Your task to perform on an android device: Go to Android settings Image 0: 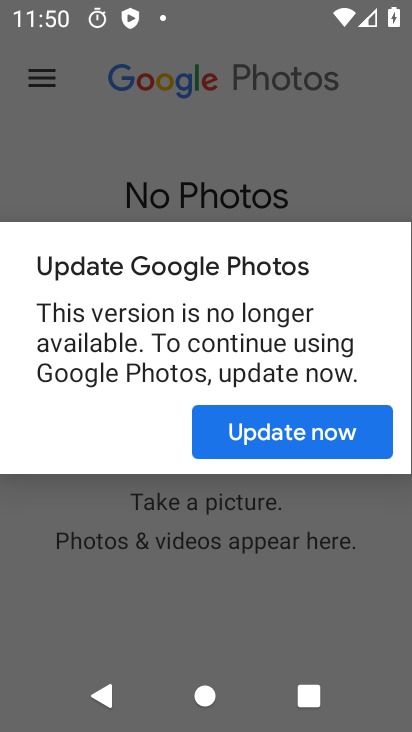
Step 0: press back button
Your task to perform on an android device: Go to Android settings Image 1: 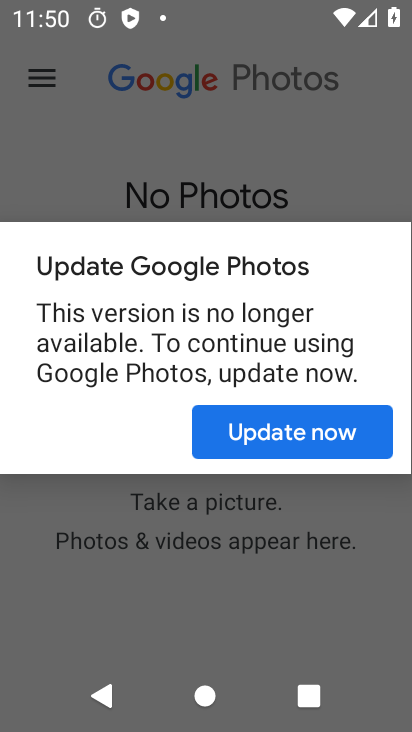
Step 1: press home button
Your task to perform on an android device: Go to Android settings Image 2: 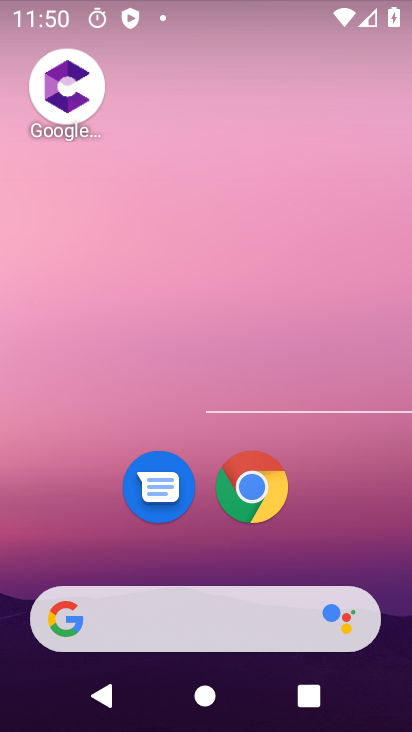
Step 2: drag from (195, 514) to (305, 13)
Your task to perform on an android device: Go to Android settings Image 3: 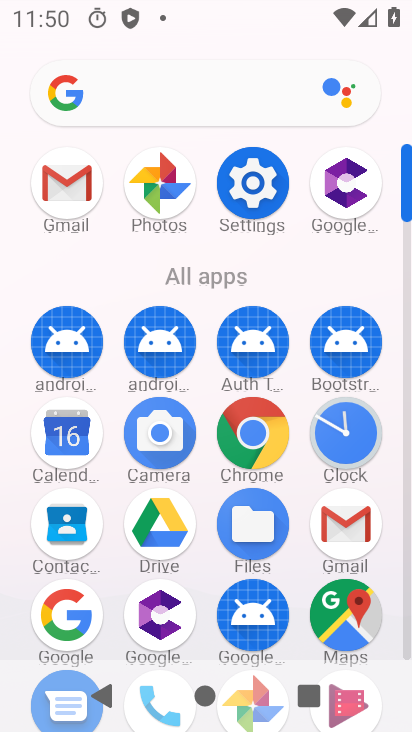
Step 3: click (257, 183)
Your task to perform on an android device: Go to Android settings Image 4: 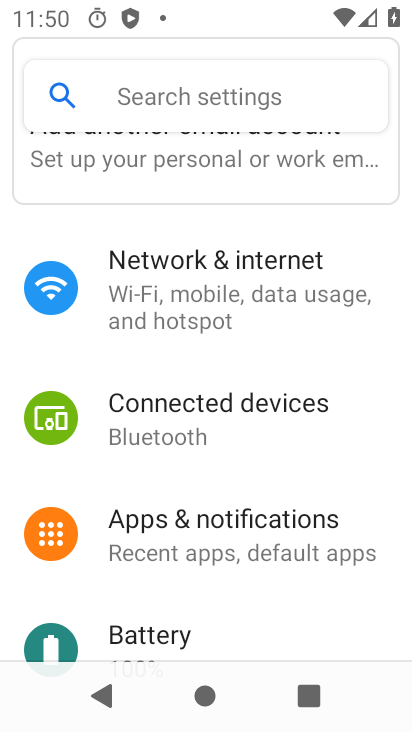
Step 4: drag from (230, 317) to (288, 59)
Your task to perform on an android device: Go to Android settings Image 5: 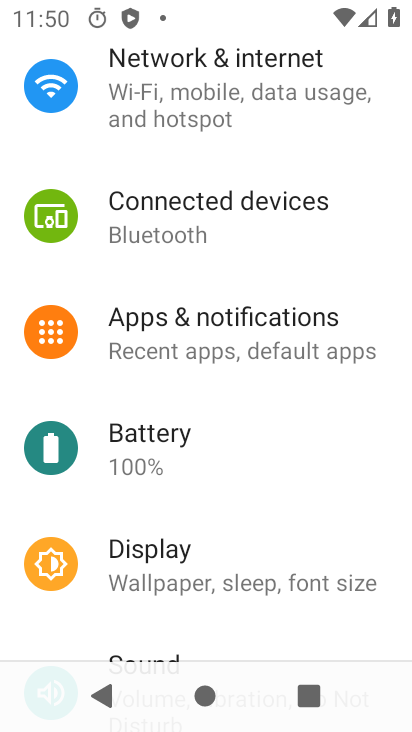
Step 5: drag from (196, 526) to (262, 41)
Your task to perform on an android device: Go to Android settings Image 6: 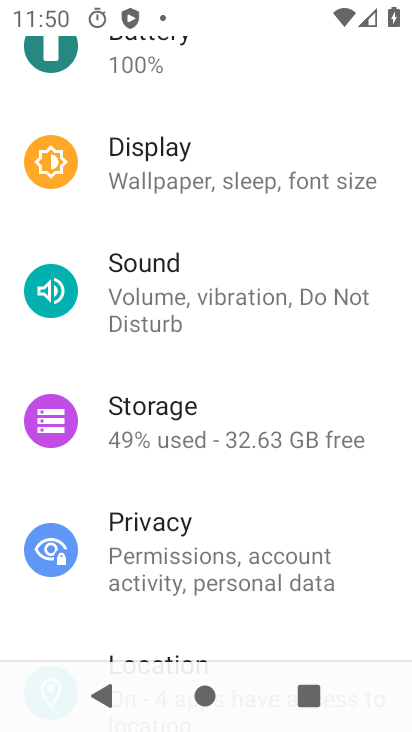
Step 6: drag from (147, 602) to (234, 43)
Your task to perform on an android device: Go to Android settings Image 7: 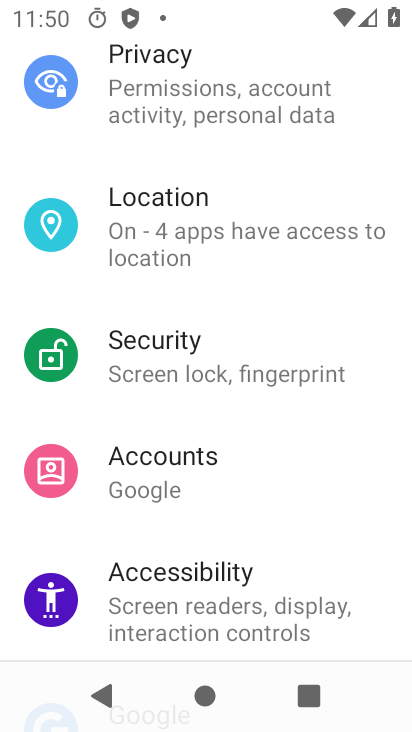
Step 7: drag from (173, 600) to (269, 0)
Your task to perform on an android device: Go to Android settings Image 8: 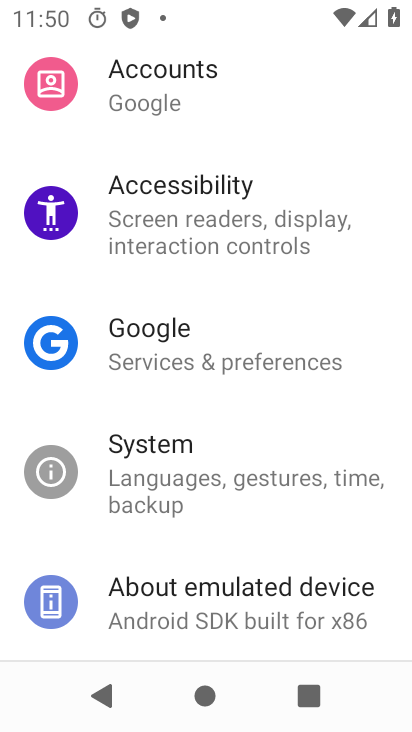
Step 8: click (202, 606)
Your task to perform on an android device: Go to Android settings Image 9: 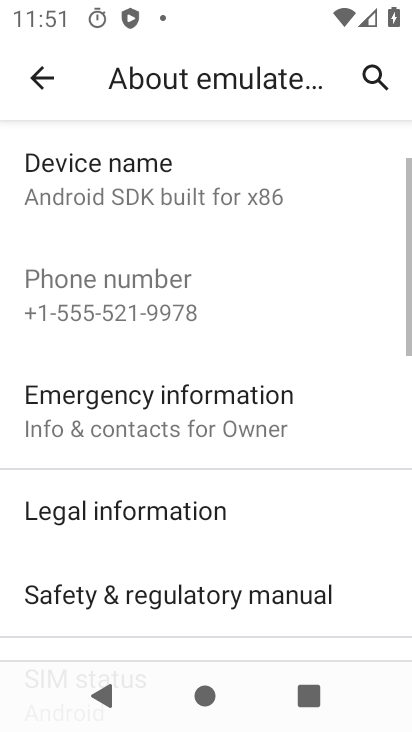
Step 9: drag from (112, 595) to (226, 111)
Your task to perform on an android device: Go to Android settings Image 10: 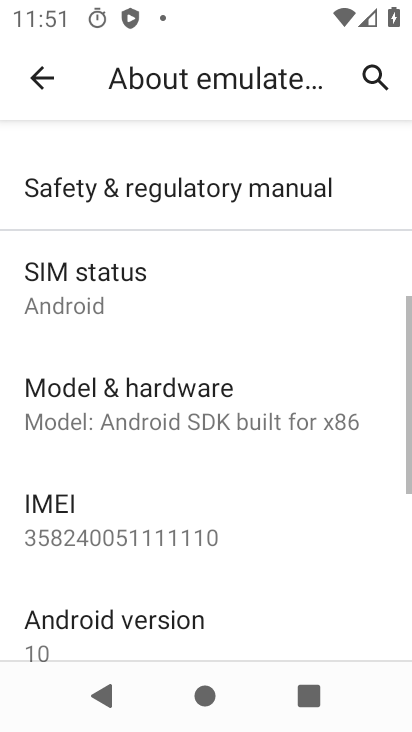
Step 10: click (159, 639)
Your task to perform on an android device: Go to Android settings Image 11: 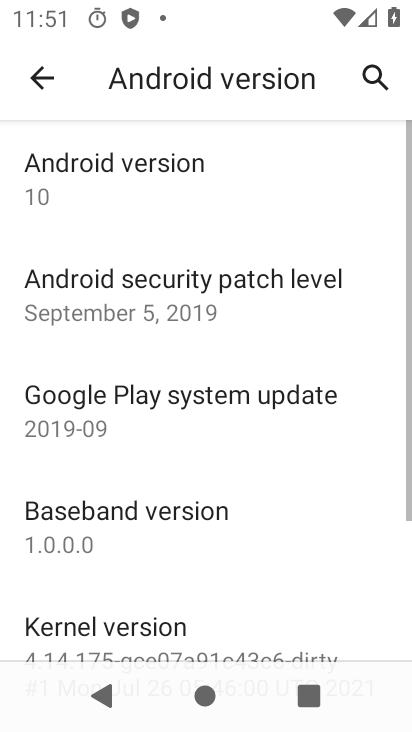
Step 11: task complete